Your task to perform on an android device: Search for pizza restaurants on Maps Image 0: 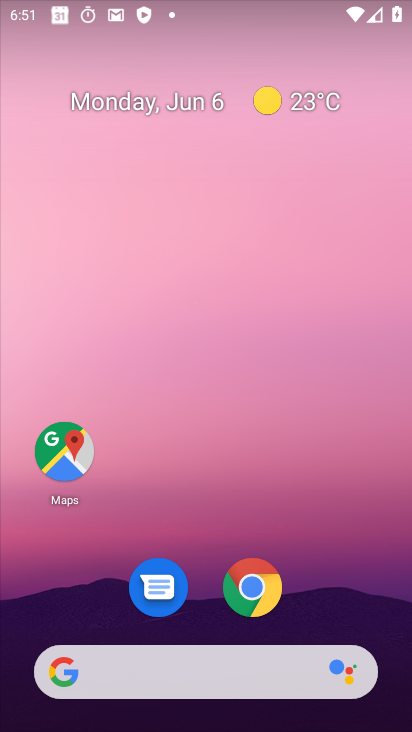
Step 0: drag from (386, 668) to (229, 96)
Your task to perform on an android device: Search for pizza restaurants on Maps Image 1: 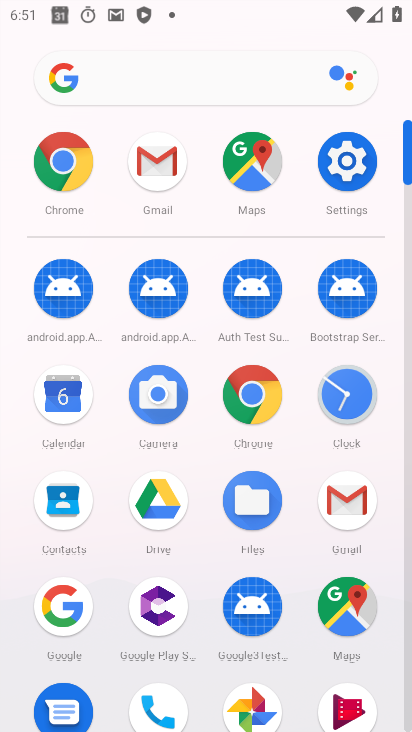
Step 1: click (242, 175)
Your task to perform on an android device: Search for pizza restaurants on Maps Image 2: 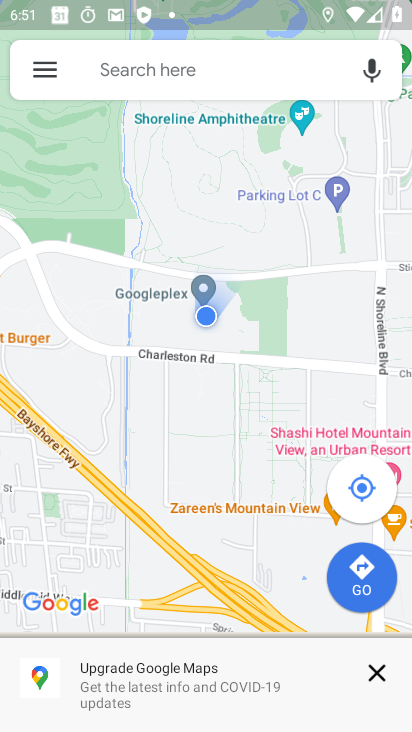
Step 2: click (157, 74)
Your task to perform on an android device: Search for pizza restaurants on Maps Image 3: 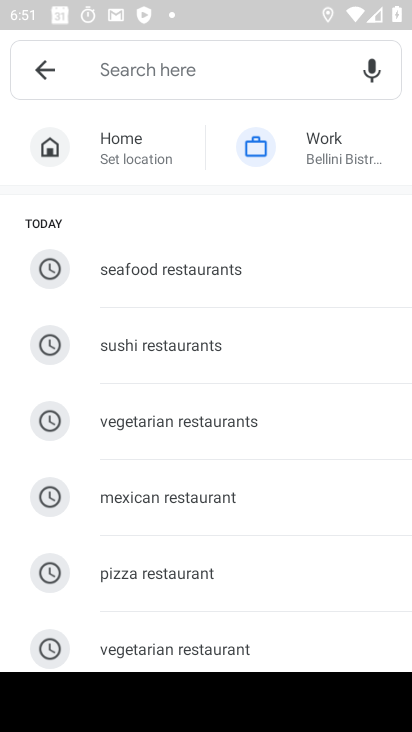
Step 3: click (208, 569)
Your task to perform on an android device: Search for pizza restaurants on Maps Image 4: 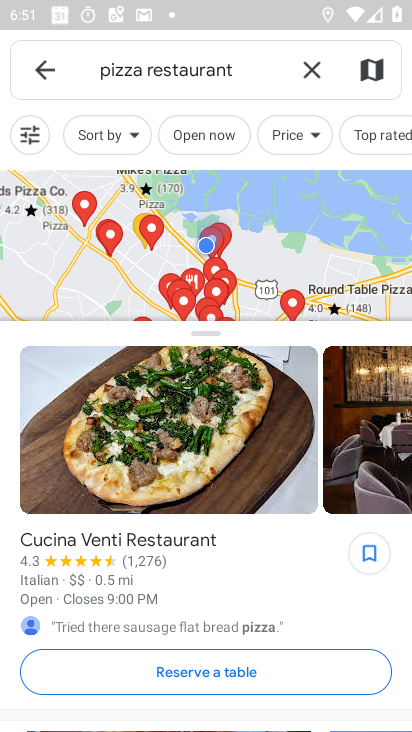
Step 4: task complete